Your task to perform on an android device: toggle airplane mode Image 0: 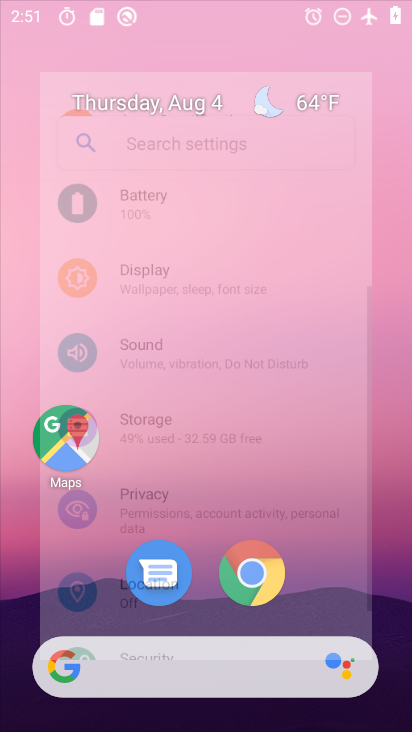
Step 0: drag from (375, 570) to (354, 130)
Your task to perform on an android device: toggle airplane mode Image 1: 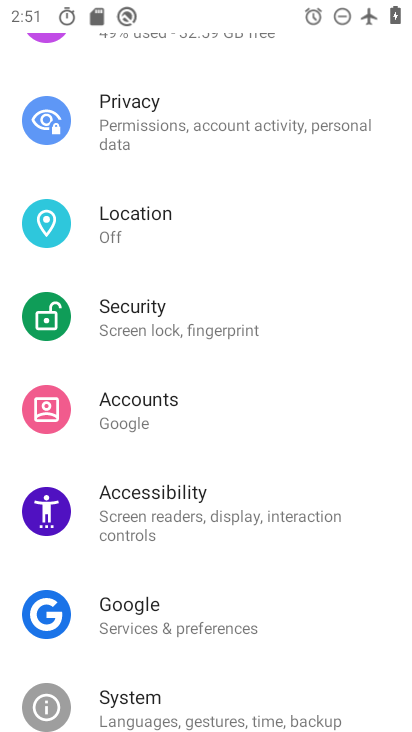
Step 1: press home button
Your task to perform on an android device: toggle airplane mode Image 2: 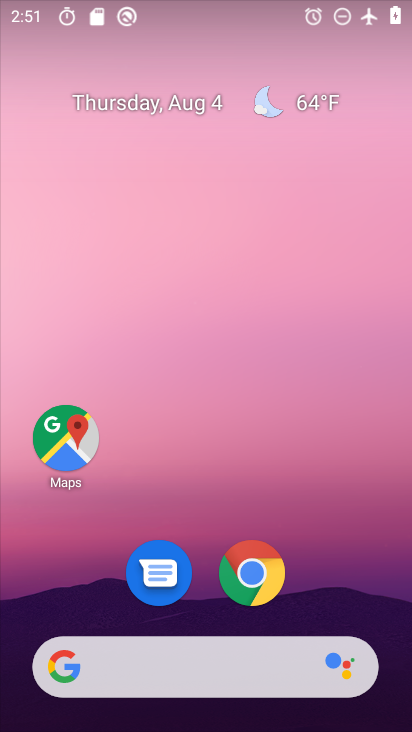
Step 2: drag from (357, 607) to (344, 169)
Your task to perform on an android device: toggle airplane mode Image 3: 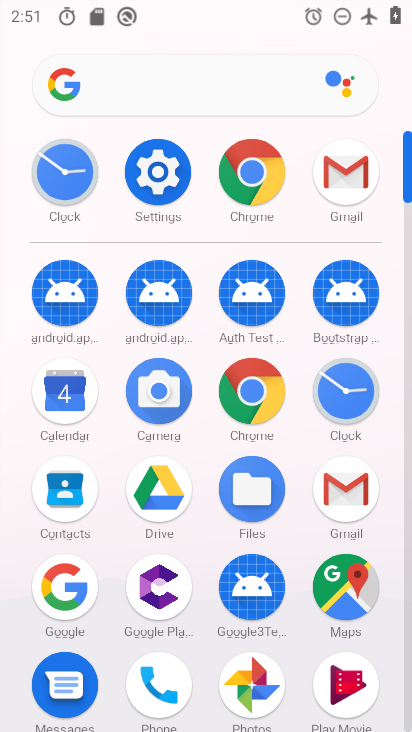
Step 3: drag from (253, 12) to (293, 460)
Your task to perform on an android device: toggle airplane mode Image 4: 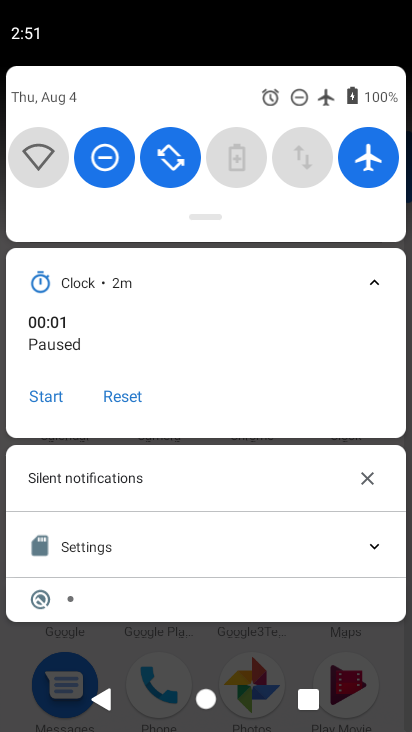
Step 4: click (363, 145)
Your task to perform on an android device: toggle airplane mode Image 5: 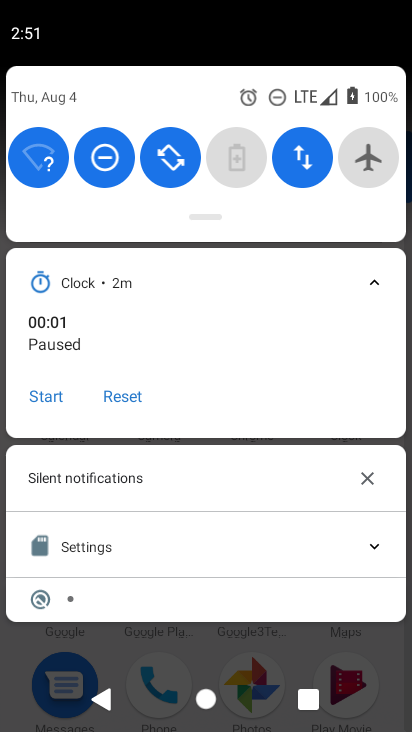
Step 5: task complete